Your task to perform on an android device: turn off javascript in the chrome app Image 0: 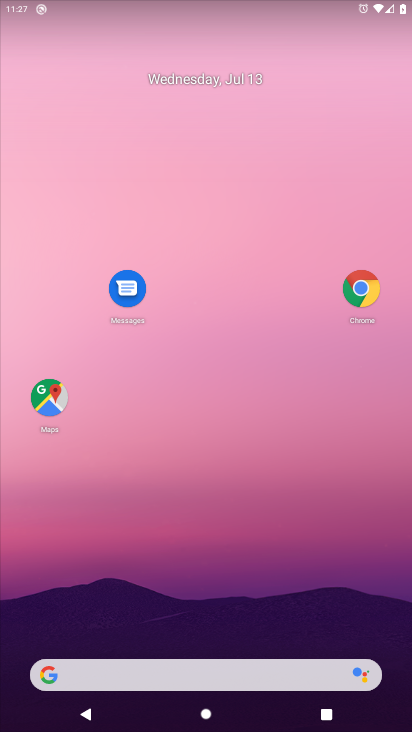
Step 0: click (363, 303)
Your task to perform on an android device: turn off javascript in the chrome app Image 1: 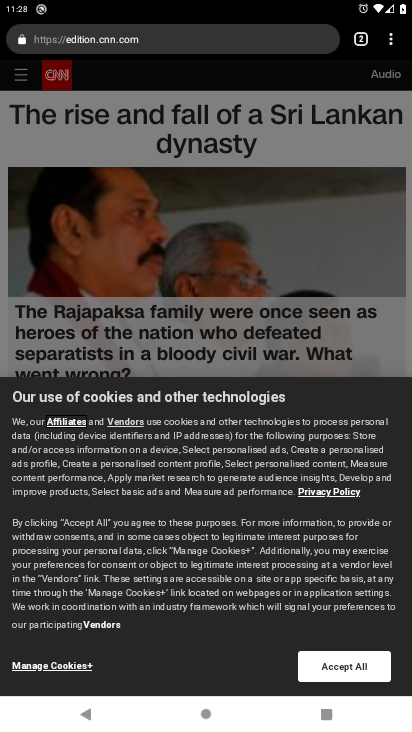
Step 1: click (392, 38)
Your task to perform on an android device: turn off javascript in the chrome app Image 2: 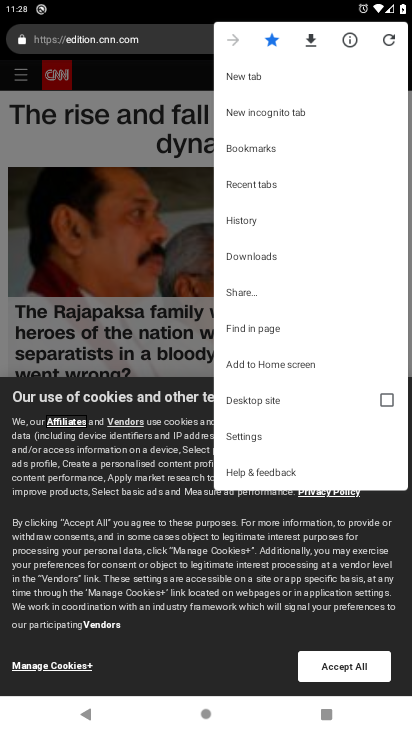
Step 2: click (245, 434)
Your task to perform on an android device: turn off javascript in the chrome app Image 3: 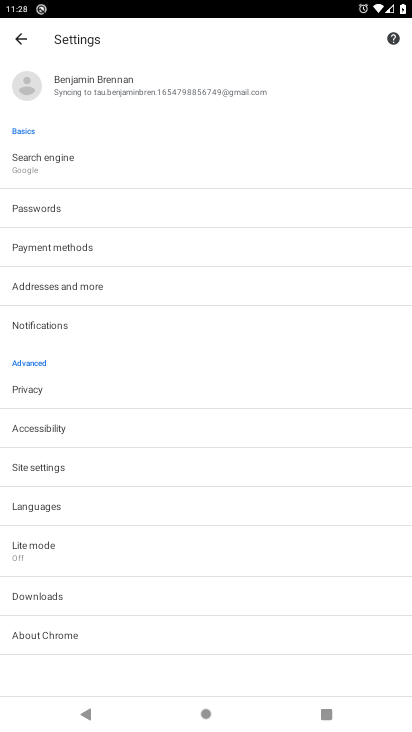
Step 3: click (28, 467)
Your task to perform on an android device: turn off javascript in the chrome app Image 4: 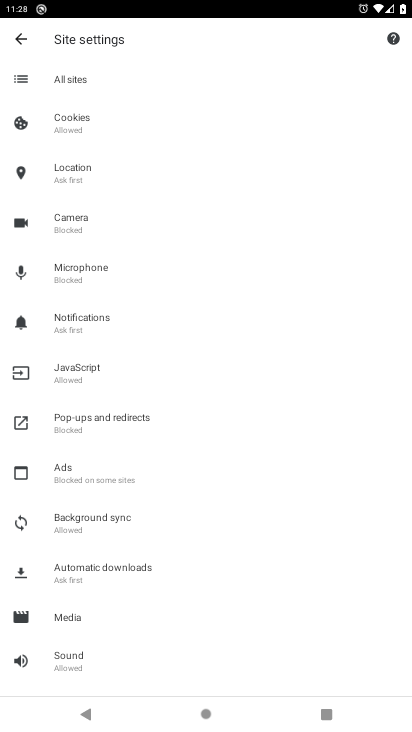
Step 4: click (99, 359)
Your task to perform on an android device: turn off javascript in the chrome app Image 5: 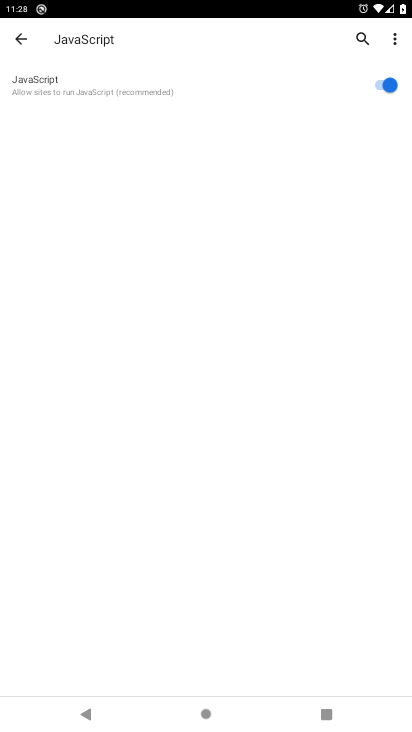
Step 5: click (391, 84)
Your task to perform on an android device: turn off javascript in the chrome app Image 6: 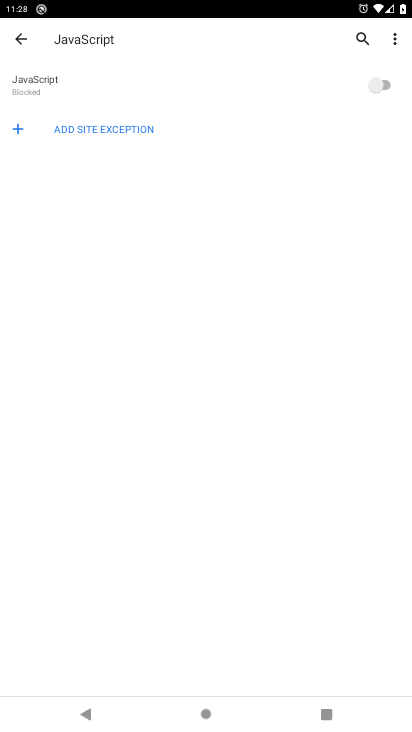
Step 6: task complete